Your task to perform on an android device: turn off translation in the chrome app Image 0: 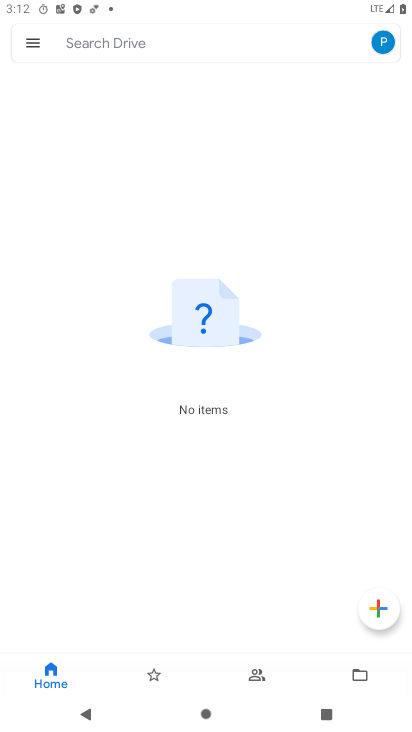
Step 0: press home button
Your task to perform on an android device: turn off translation in the chrome app Image 1: 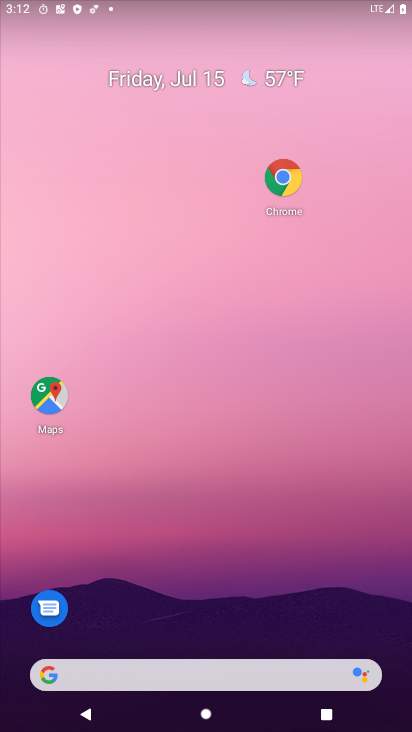
Step 1: press home button
Your task to perform on an android device: turn off translation in the chrome app Image 2: 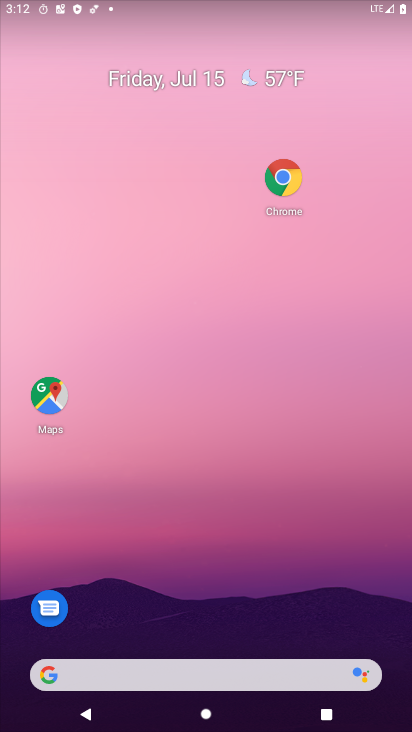
Step 2: click (275, 183)
Your task to perform on an android device: turn off translation in the chrome app Image 3: 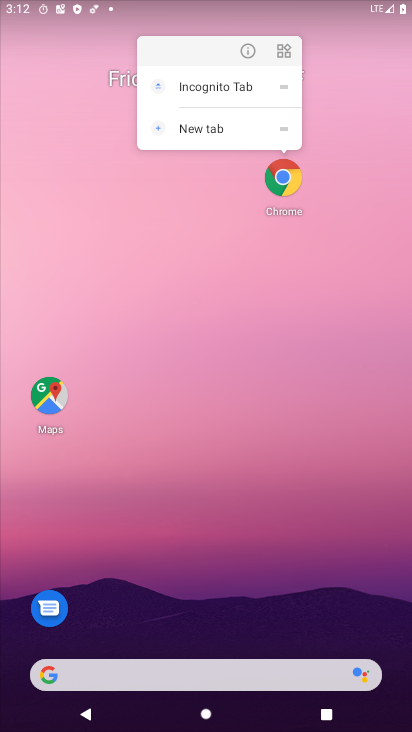
Step 3: click (275, 183)
Your task to perform on an android device: turn off translation in the chrome app Image 4: 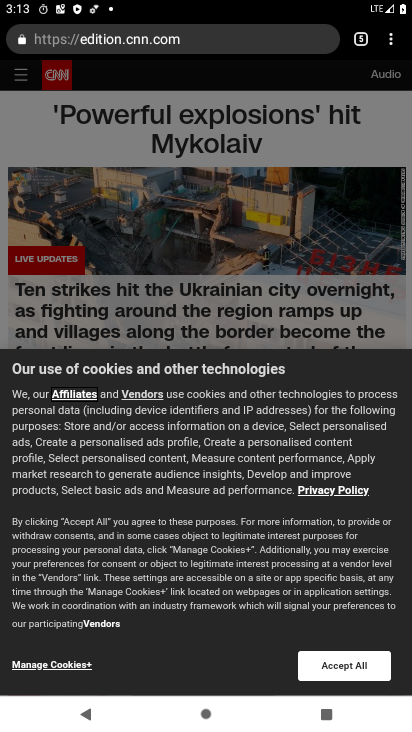
Step 4: drag from (396, 44) to (264, 431)
Your task to perform on an android device: turn off translation in the chrome app Image 5: 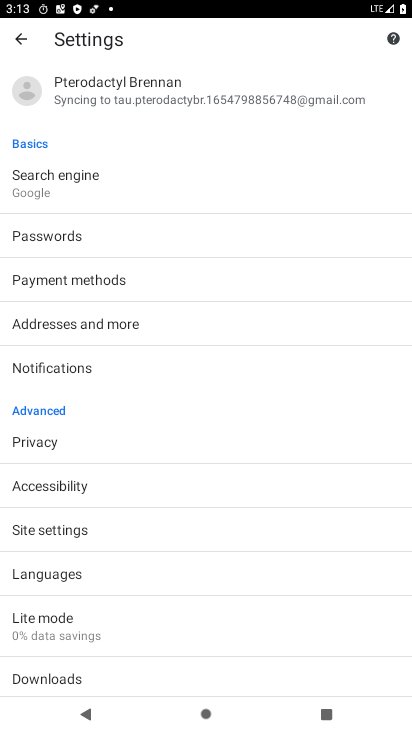
Step 5: click (84, 585)
Your task to perform on an android device: turn off translation in the chrome app Image 6: 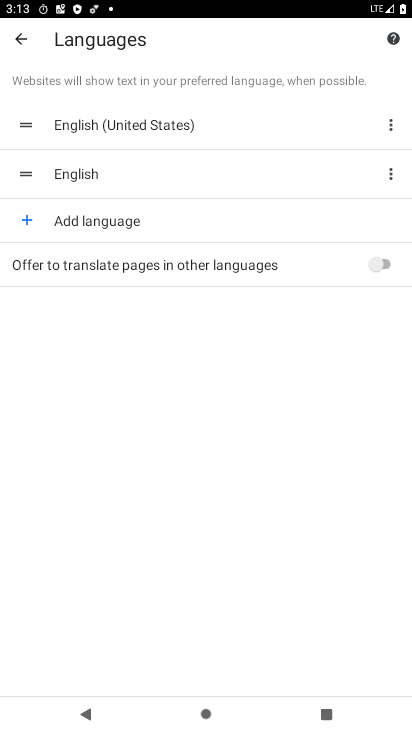
Step 6: task complete